Your task to perform on an android device: turn on the 12-hour format for clock Image 0: 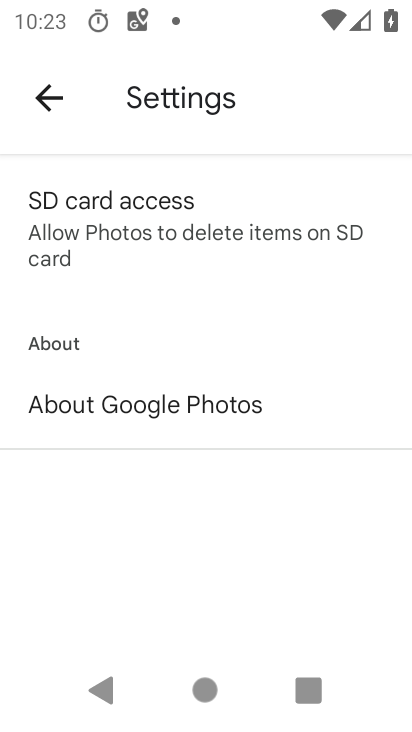
Step 0: click (36, 98)
Your task to perform on an android device: turn on the 12-hour format for clock Image 1: 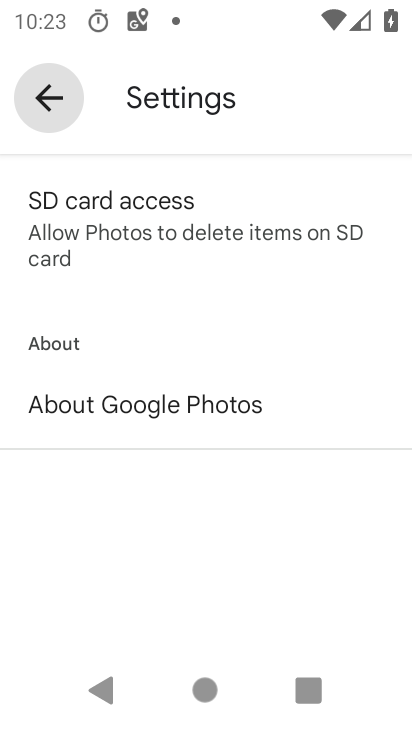
Step 1: click (39, 92)
Your task to perform on an android device: turn on the 12-hour format for clock Image 2: 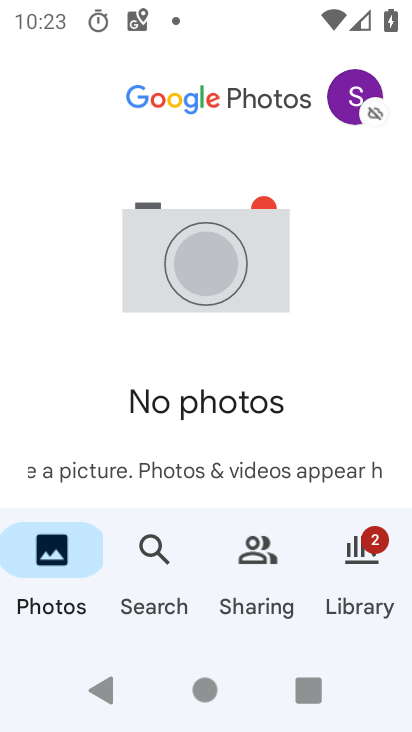
Step 2: press back button
Your task to perform on an android device: turn on the 12-hour format for clock Image 3: 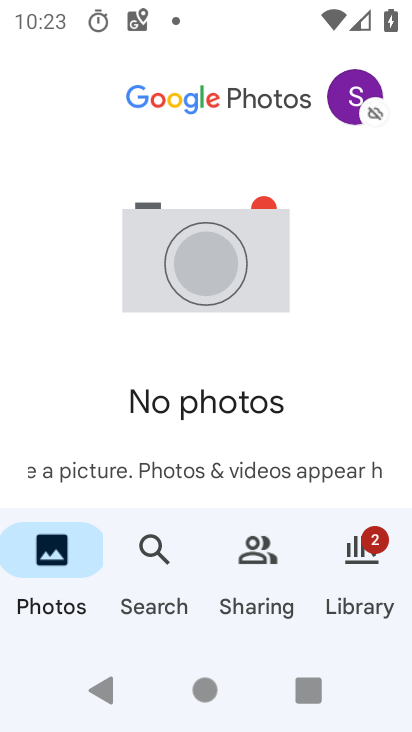
Step 3: press back button
Your task to perform on an android device: turn on the 12-hour format for clock Image 4: 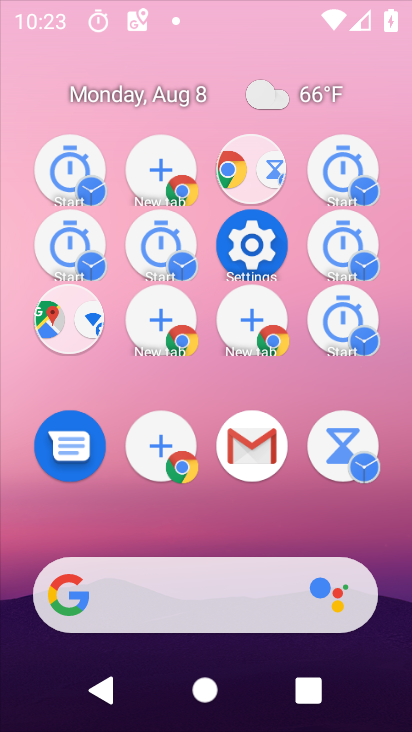
Step 4: press back button
Your task to perform on an android device: turn on the 12-hour format for clock Image 5: 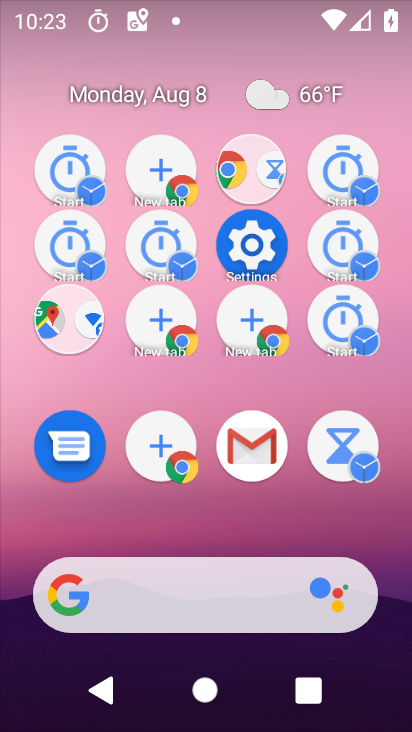
Step 5: press home button
Your task to perform on an android device: turn on the 12-hour format for clock Image 6: 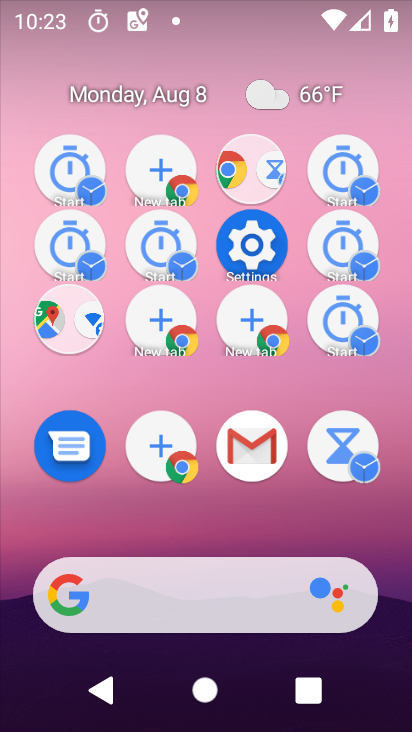
Step 6: drag from (245, 607) to (237, 381)
Your task to perform on an android device: turn on the 12-hour format for clock Image 7: 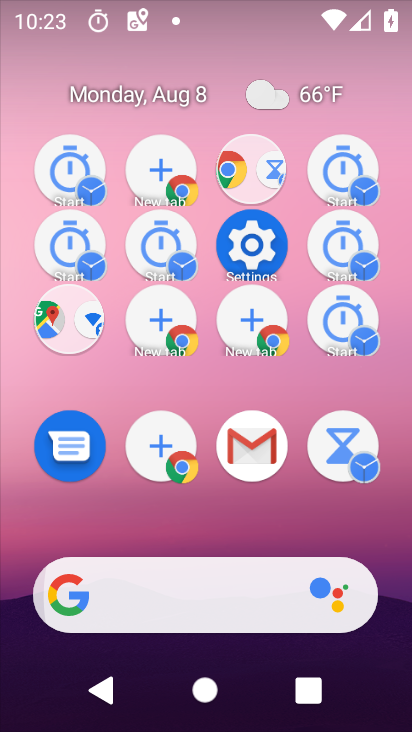
Step 7: drag from (282, 615) to (282, 309)
Your task to perform on an android device: turn on the 12-hour format for clock Image 8: 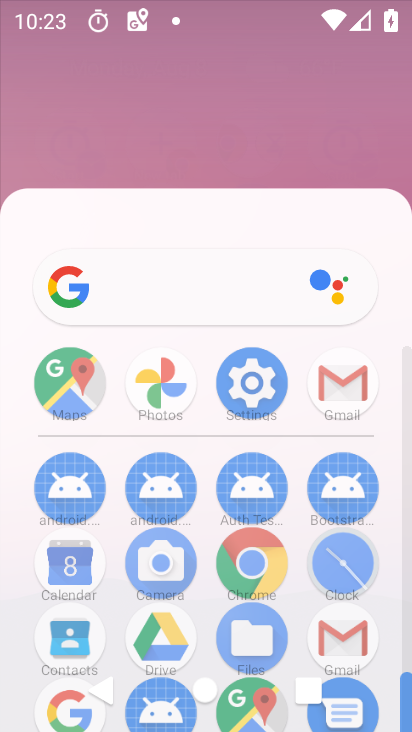
Step 8: drag from (342, 547) to (334, 499)
Your task to perform on an android device: turn on the 12-hour format for clock Image 9: 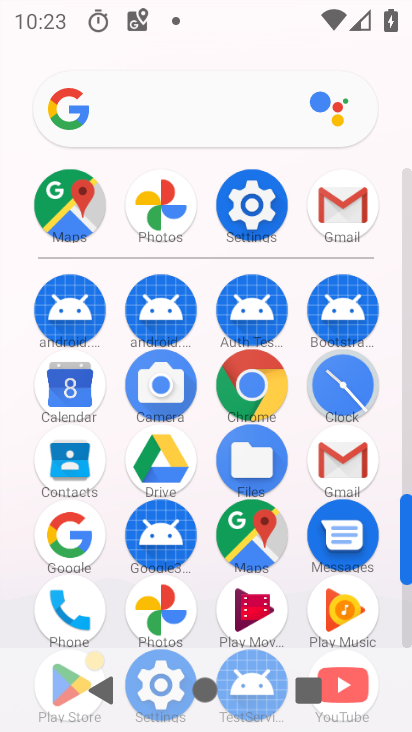
Step 9: click (339, 382)
Your task to perform on an android device: turn on the 12-hour format for clock Image 10: 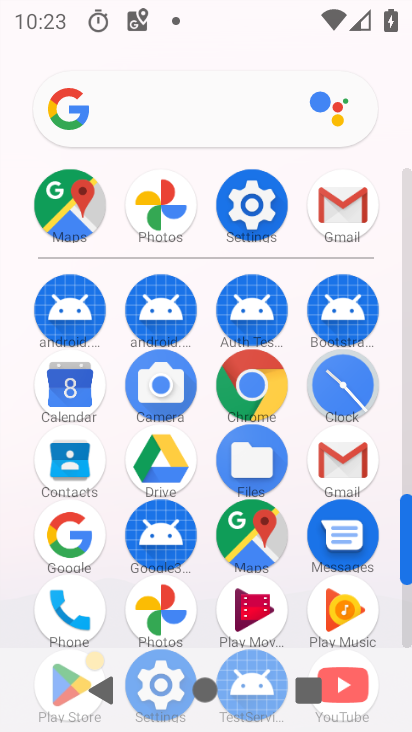
Step 10: click (340, 382)
Your task to perform on an android device: turn on the 12-hour format for clock Image 11: 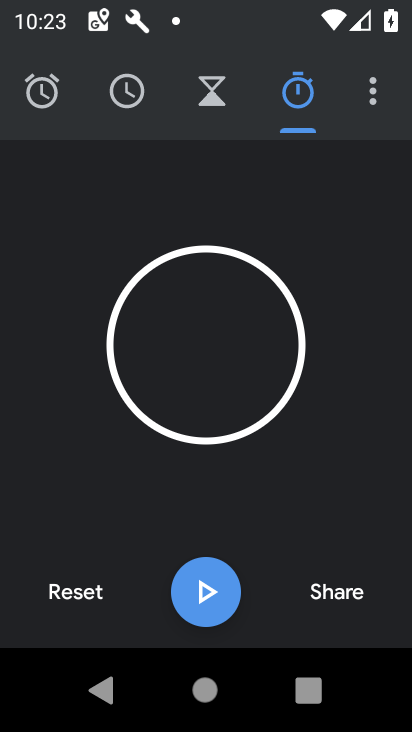
Step 11: click (363, 92)
Your task to perform on an android device: turn on the 12-hour format for clock Image 12: 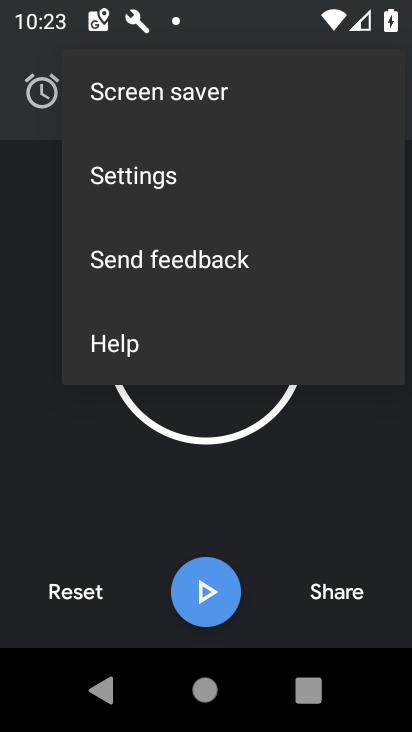
Step 12: click (145, 179)
Your task to perform on an android device: turn on the 12-hour format for clock Image 13: 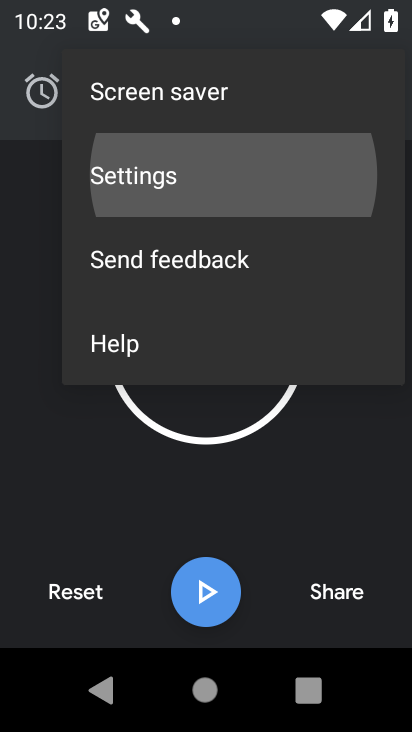
Step 13: click (145, 180)
Your task to perform on an android device: turn on the 12-hour format for clock Image 14: 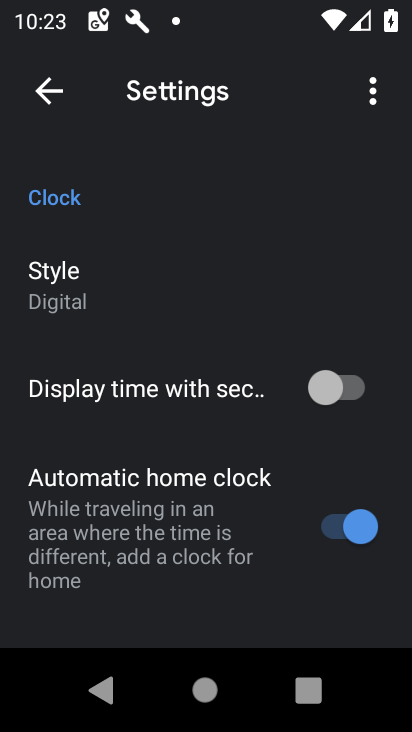
Step 14: drag from (182, 532) to (142, 245)
Your task to perform on an android device: turn on the 12-hour format for clock Image 15: 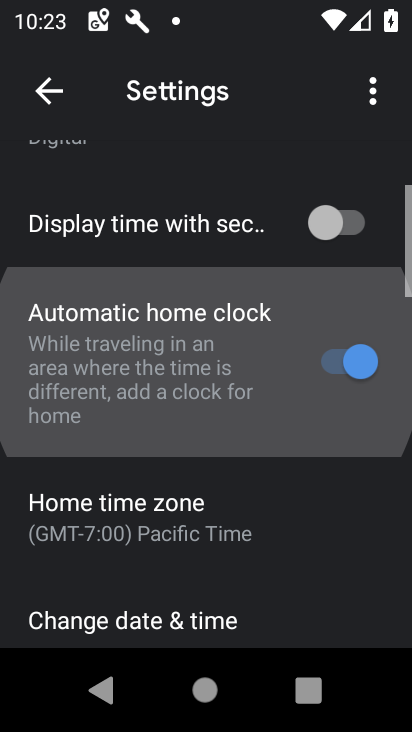
Step 15: drag from (180, 481) to (165, 224)
Your task to perform on an android device: turn on the 12-hour format for clock Image 16: 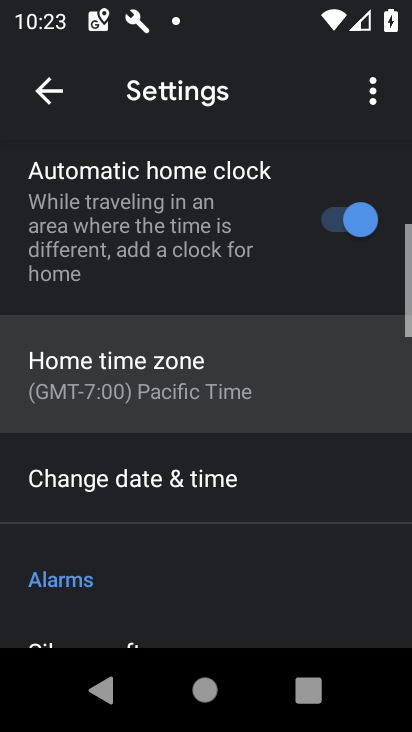
Step 16: drag from (227, 492) to (230, 201)
Your task to perform on an android device: turn on the 12-hour format for clock Image 17: 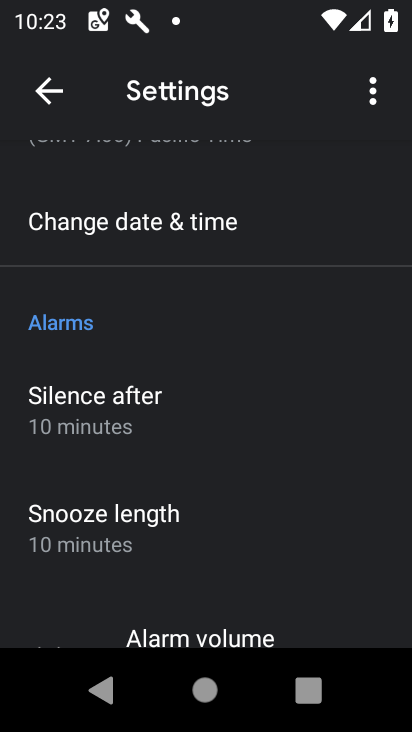
Step 17: click (148, 192)
Your task to perform on an android device: turn on the 12-hour format for clock Image 18: 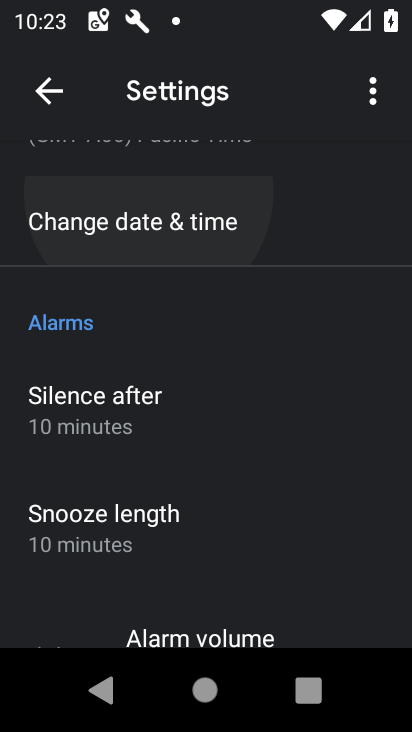
Step 18: click (148, 211)
Your task to perform on an android device: turn on the 12-hour format for clock Image 19: 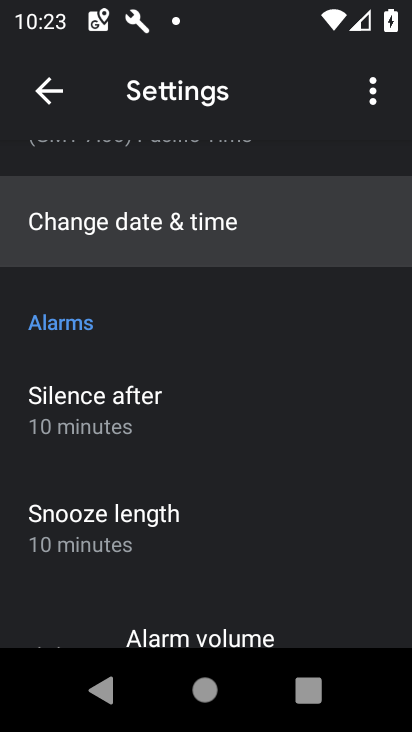
Step 19: click (148, 219)
Your task to perform on an android device: turn on the 12-hour format for clock Image 20: 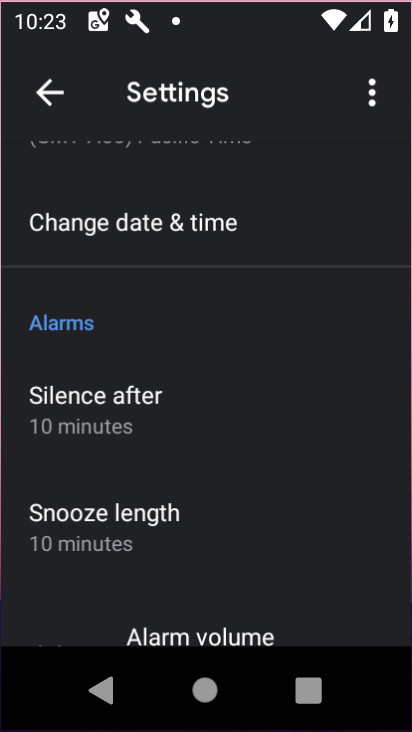
Step 20: click (149, 220)
Your task to perform on an android device: turn on the 12-hour format for clock Image 21: 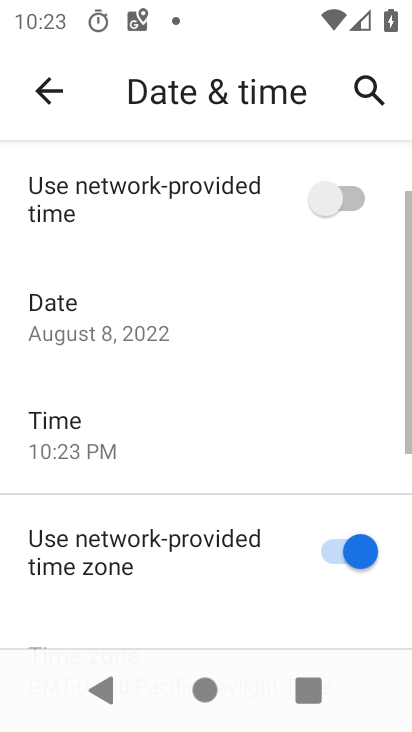
Step 21: task complete